Your task to perform on an android device: Search for flights from NYC to Tokyo Image 0: 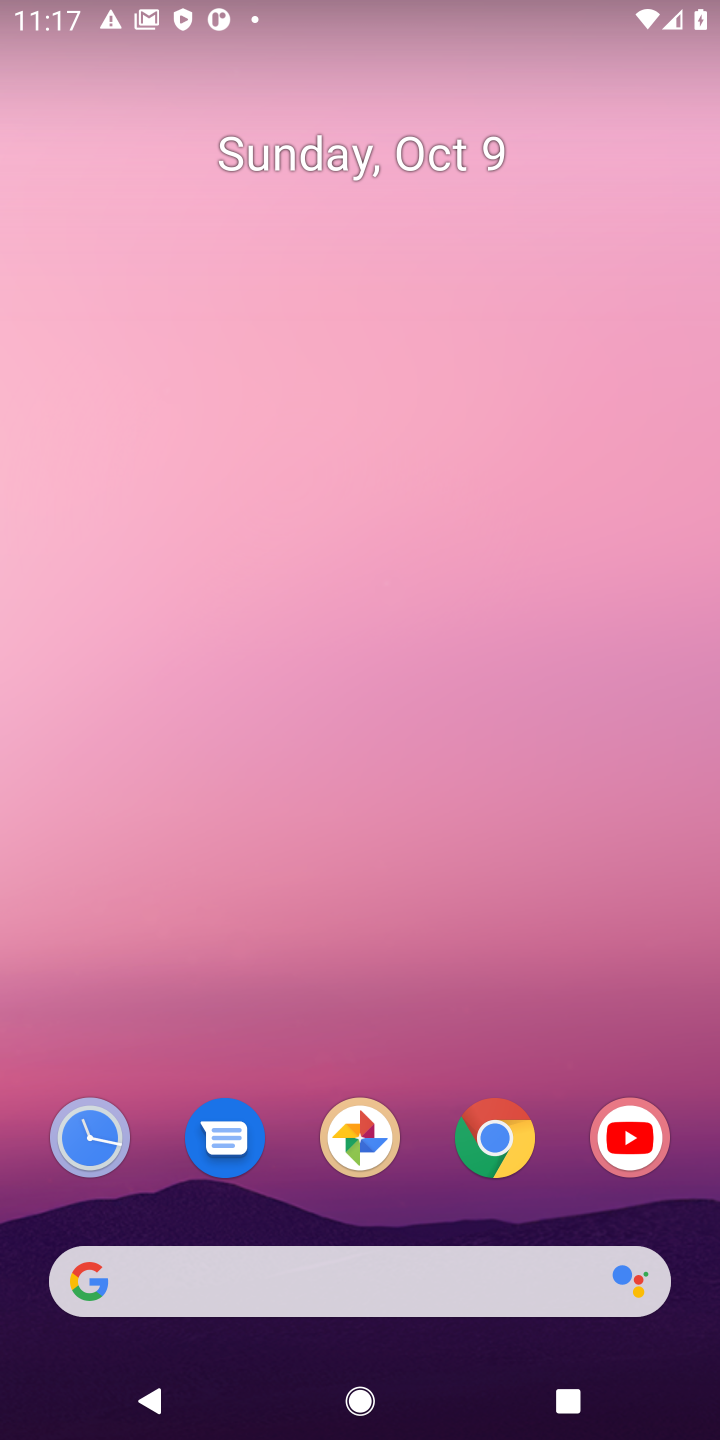
Step 0: click (514, 1139)
Your task to perform on an android device: Search for flights from NYC to Tokyo Image 1: 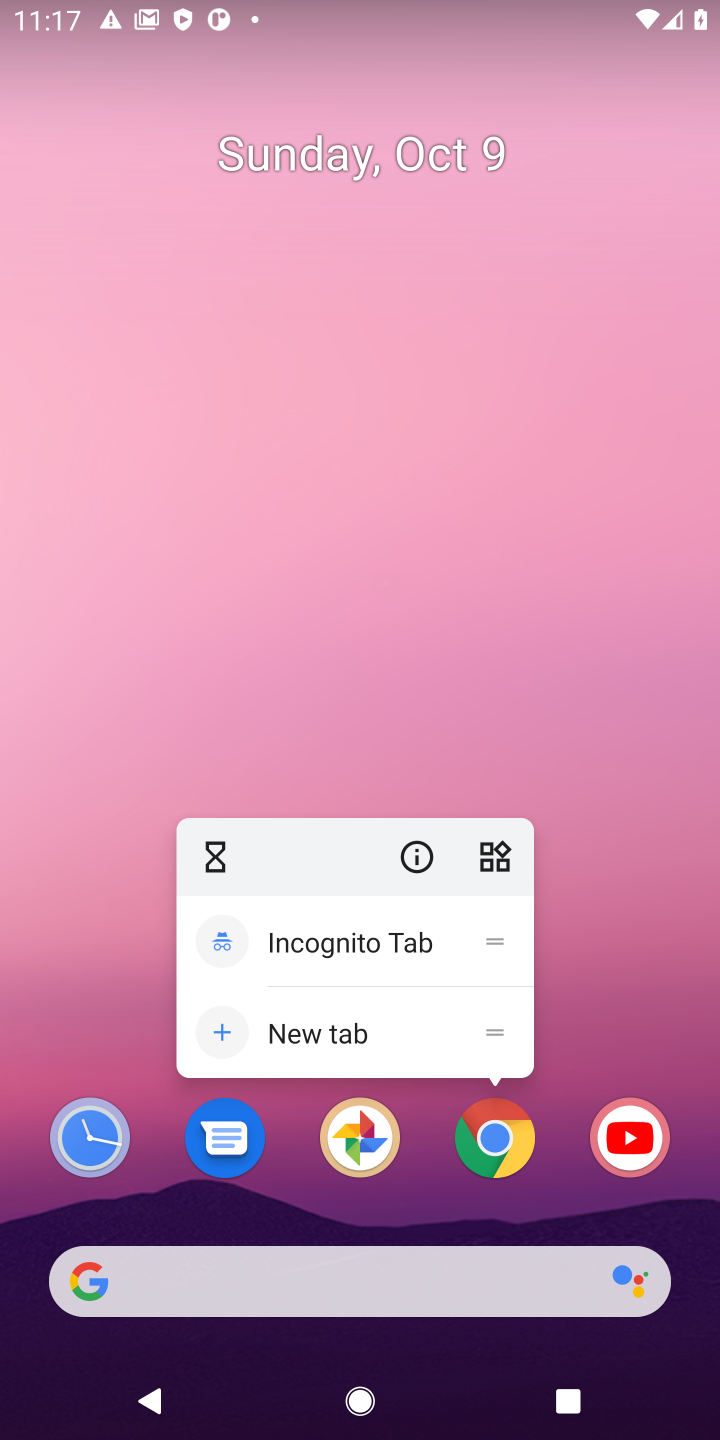
Step 1: click (514, 1139)
Your task to perform on an android device: Search for flights from NYC to Tokyo Image 2: 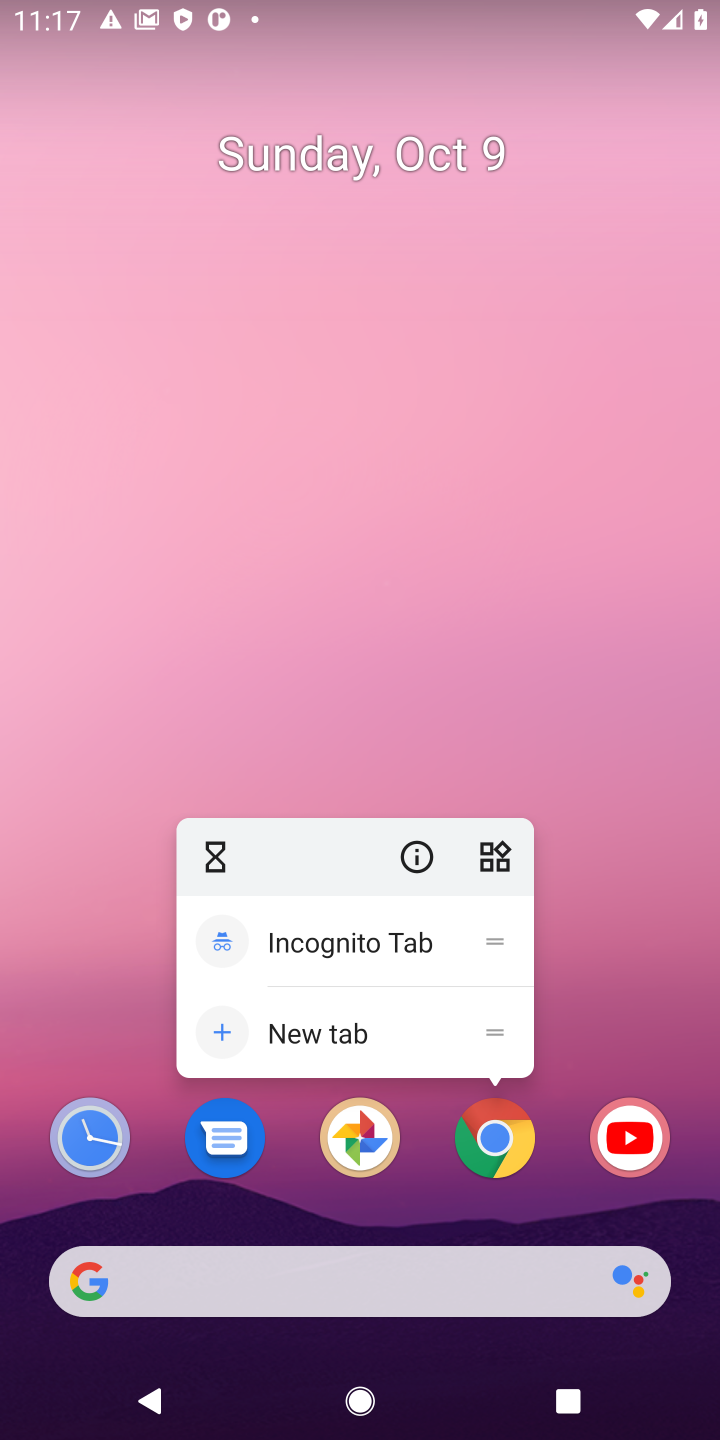
Step 2: click (514, 1139)
Your task to perform on an android device: Search for flights from NYC to Tokyo Image 3: 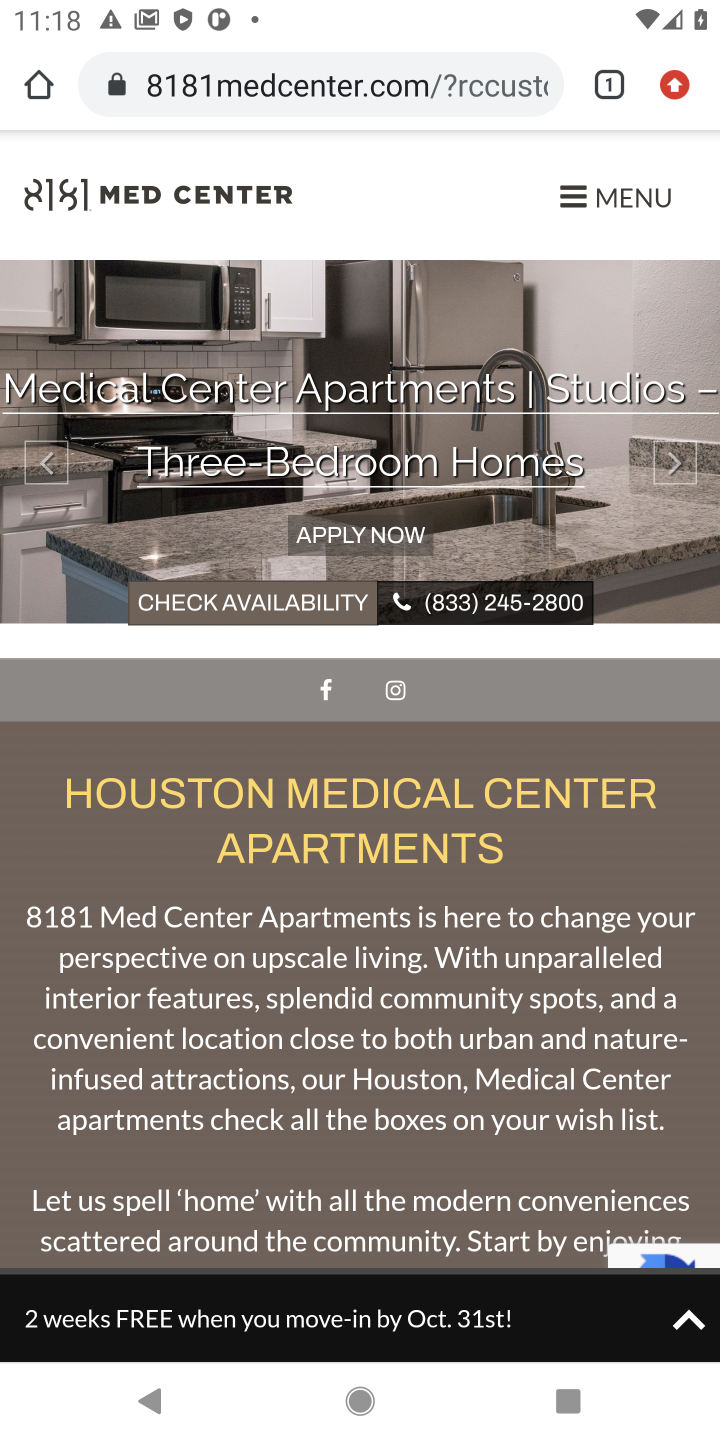
Step 3: click (405, 88)
Your task to perform on an android device: Search for flights from NYC to Tokyo Image 4: 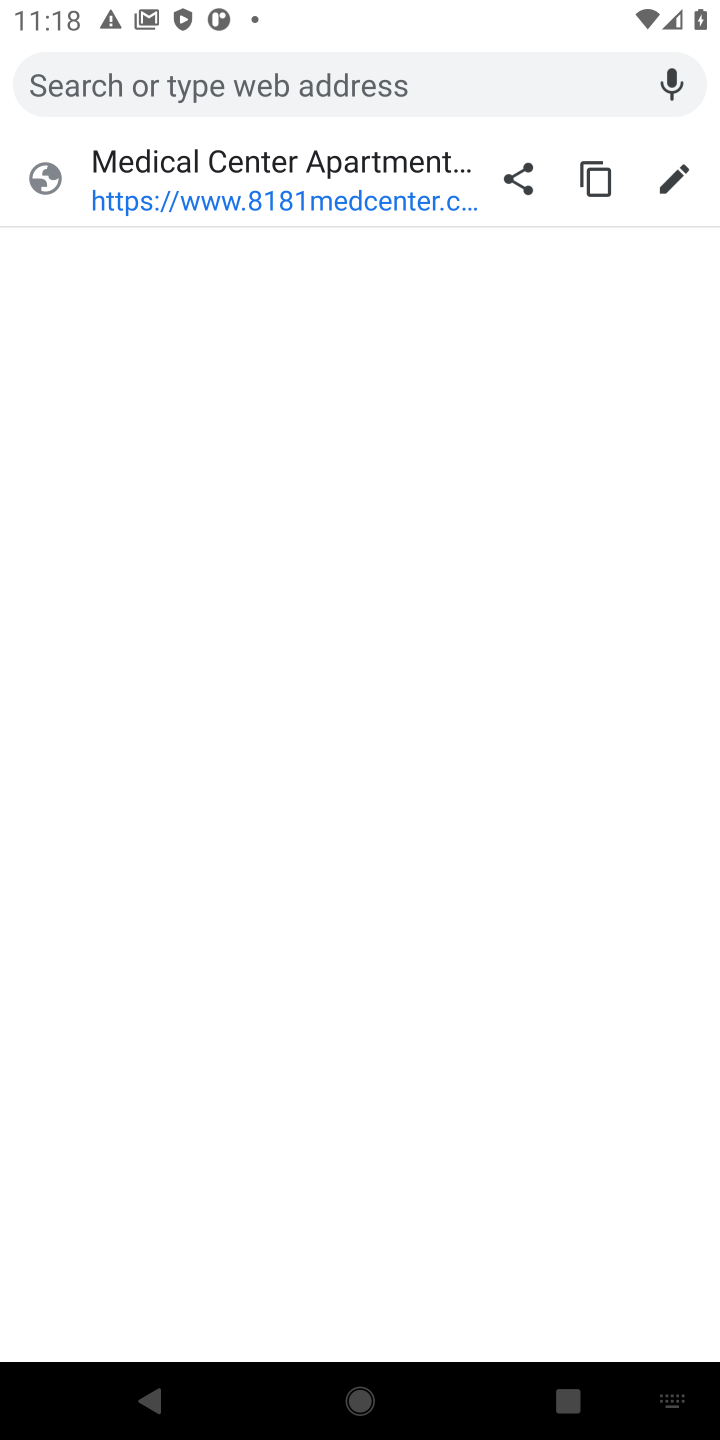
Step 4: type "flights from NYC to Tokyo"
Your task to perform on an android device: Search for flights from NYC to Tokyo Image 5: 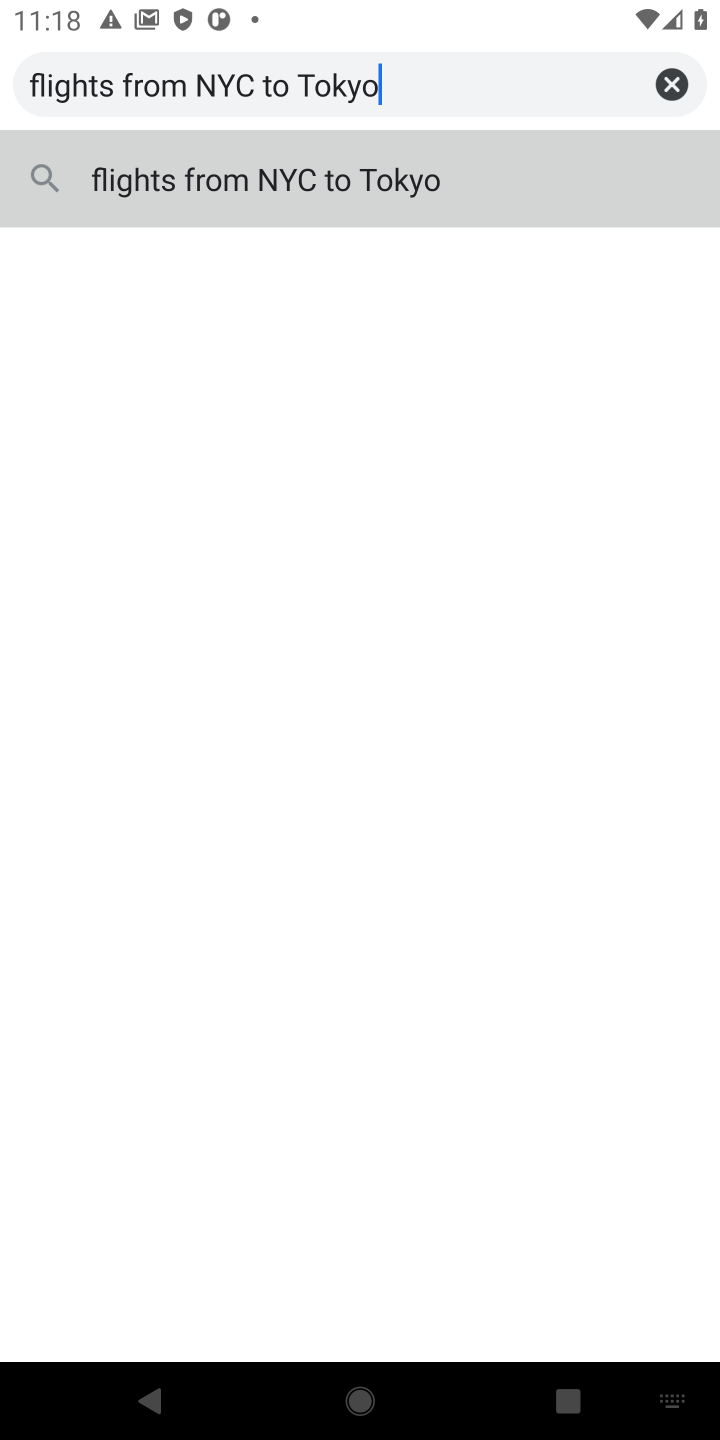
Step 5: press enter
Your task to perform on an android device: Search for flights from NYC to Tokyo Image 6: 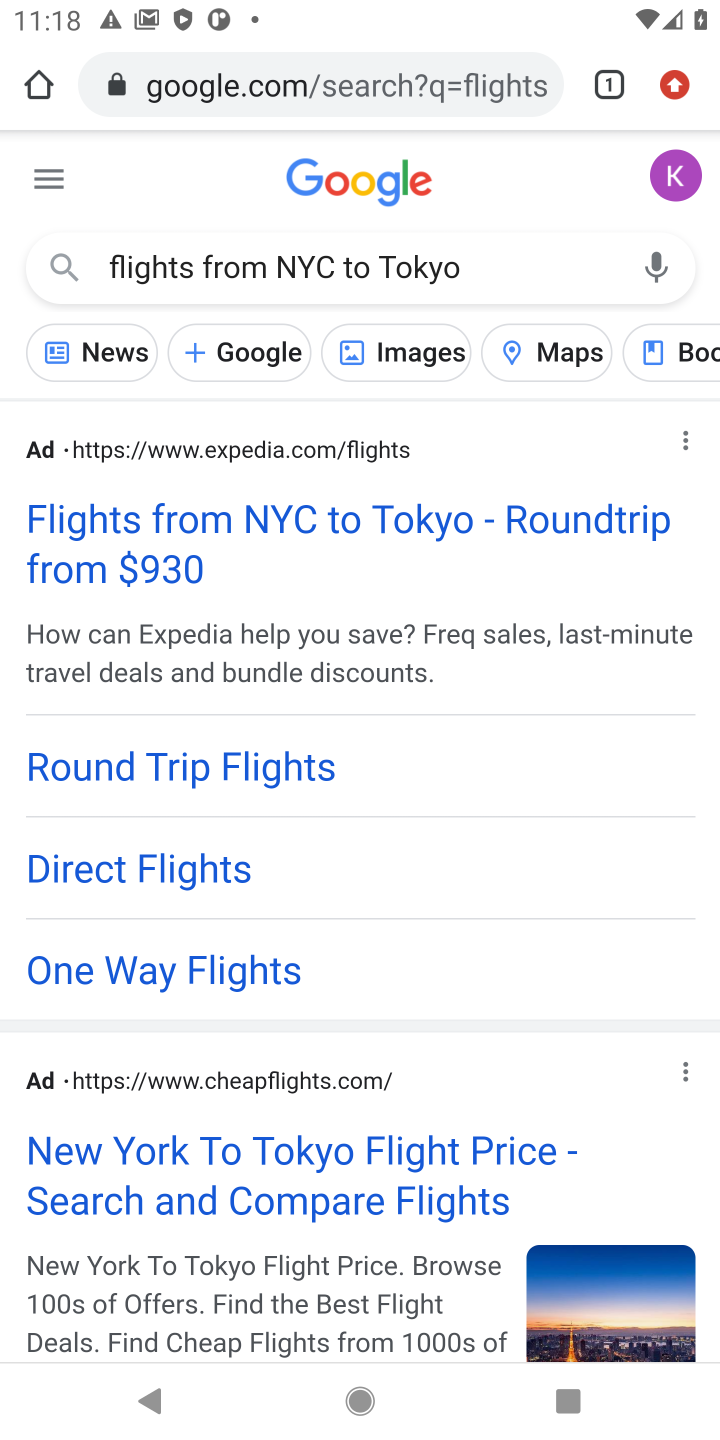
Step 6: task complete